Your task to perform on an android device: Open Google Chrome and click the shortcut for Amazon.com Image 0: 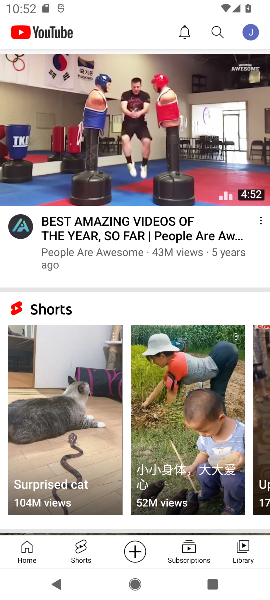
Step 0: press home button
Your task to perform on an android device: Open Google Chrome and click the shortcut for Amazon.com Image 1: 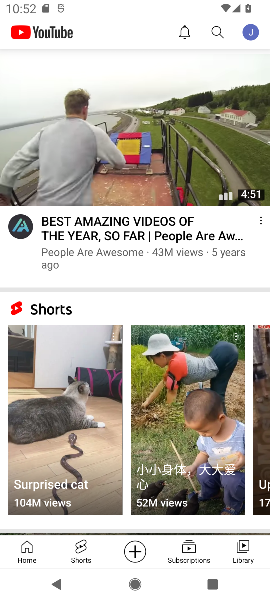
Step 1: press home button
Your task to perform on an android device: Open Google Chrome and click the shortcut for Amazon.com Image 2: 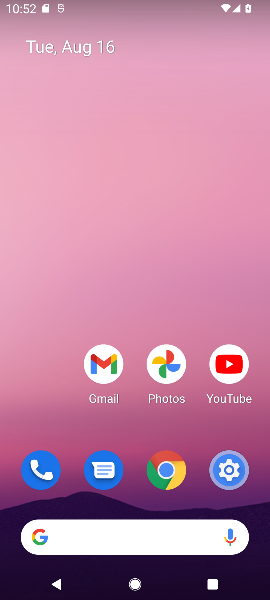
Step 2: click (179, 470)
Your task to perform on an android device: Open Google Chrome and click the shortcut for Amazon.com Image 3: 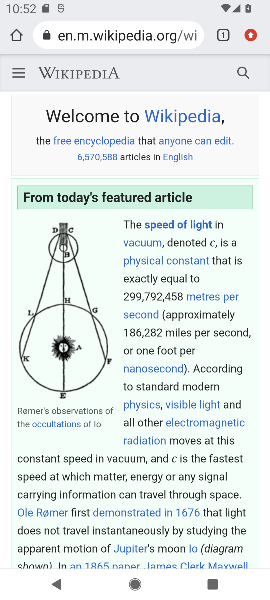
Step 3: press back button
Your task to perform on an android device: Open Google Chrome and click the shortcut for Amazon.com Image 4: 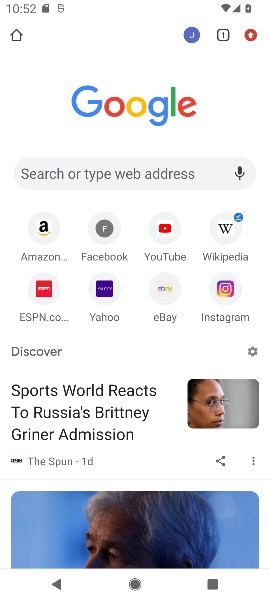
Step 4: click (46, 231)
Your task to perform on an android device: Open Google Chrome and click the shortcut for Amazon.com Image 5: 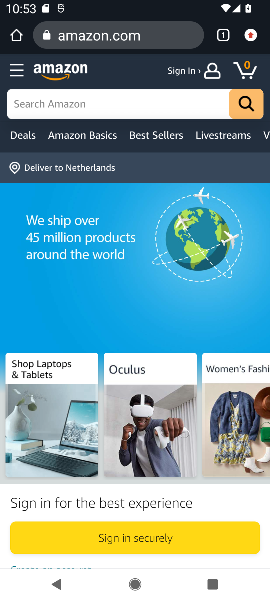
Step 5: task complete